Your task to perform on an android device: stop showing notifications on the lock screen Image 0: 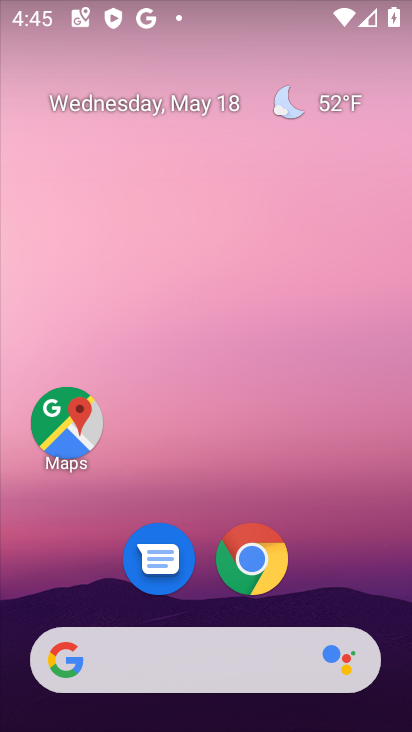
Step 0: drag from (195, 398) to (254, 31)
Your task to perform on an android device: stop showing notifications on the lock screen Image 1: 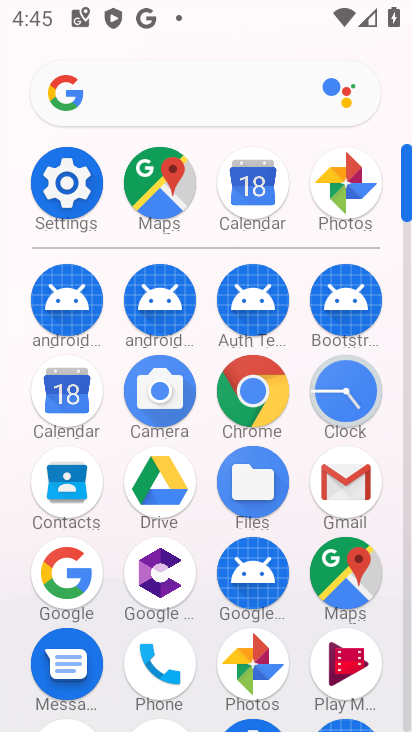
Step 1: click (76, 187)
Your task to perform on an android device: stop showing notifications on the lock screen Image 2: 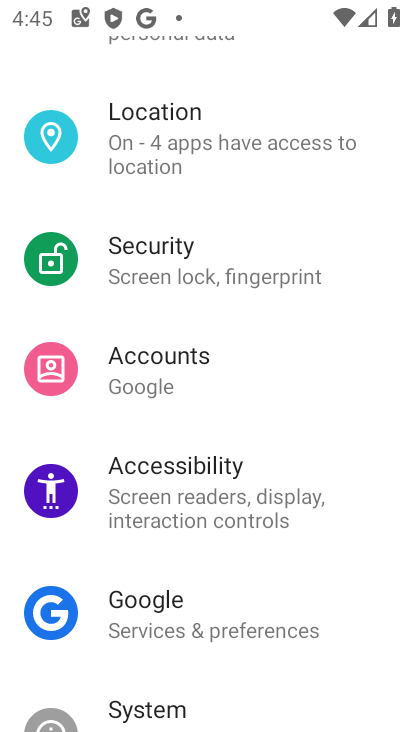
Step 2: drag from (277, 148) to (261, 429)
Your task to perform on an android device: stop showing notifications on the lock screen Image 3: 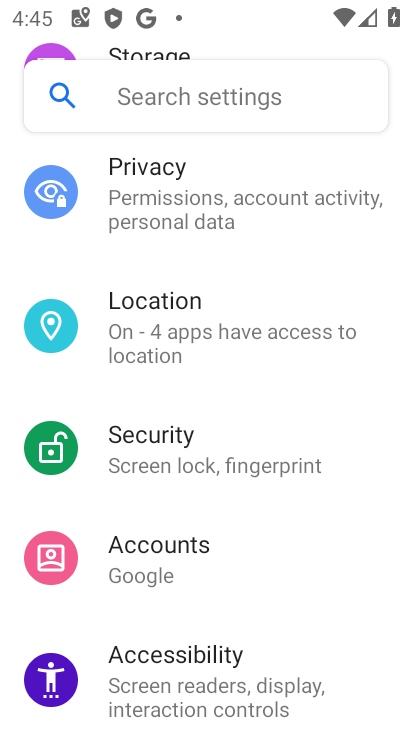
Step 3: drag from (148, 210) to (167, 413)
Your task to perform on an android device: stop showing notifications on the lock screen Image 4: 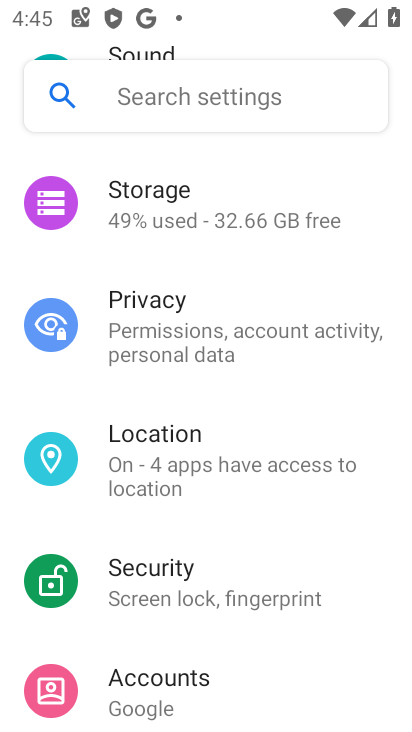
Step 4: drag from (260, 255) to (199, 676)
Your task to perform on an android device: stop showing notifications on the lock screen Image 5: 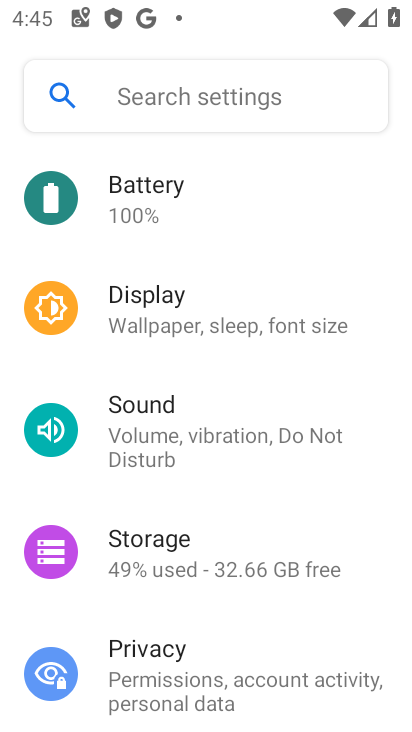
Step 5: drag from (229, 222) to (216, 629)
Your task to perform on an android device: stop showing notifications on the lock screen Image 6: 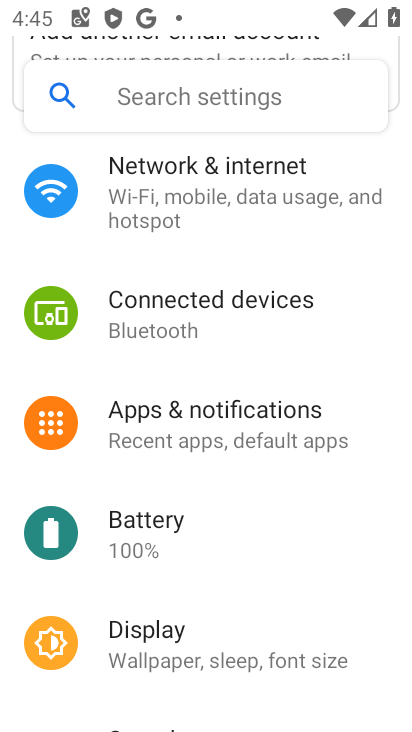
Step 6: click (199, 418)
Your task to perform on an android device: stop showing notifications on the lock screen Image 7: 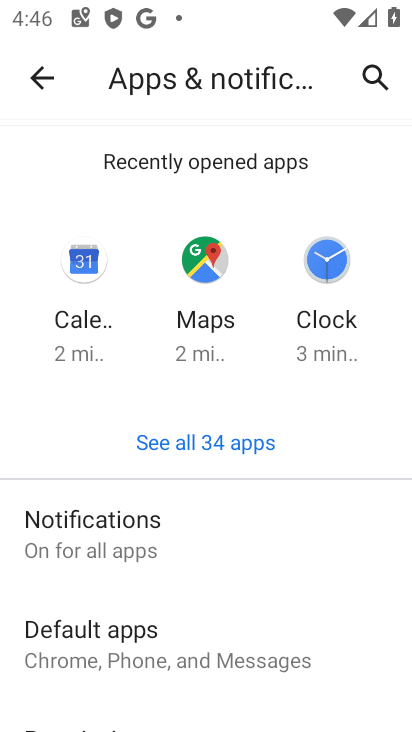
Step 7: click (149, 530)
Your task to perform on an android device: stop showing notifications on the lock screen Image 8: 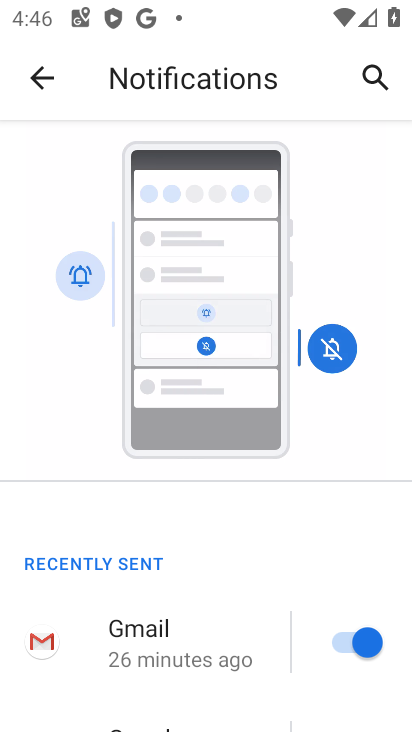
Step 8: drag from (172, 641) to (265, 69)
Your task to perform on an android device: stop showing notifications on the lock screen Image 9: 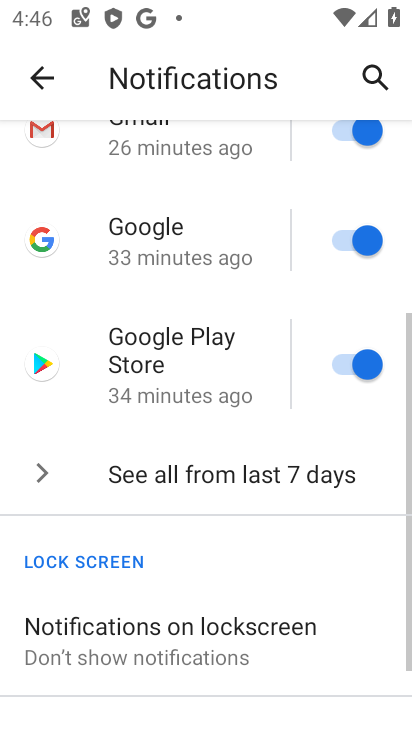
Step 9: click (200, 635)
Your task to perform on an android device: stop showing notifications on the lock screen Image 10: 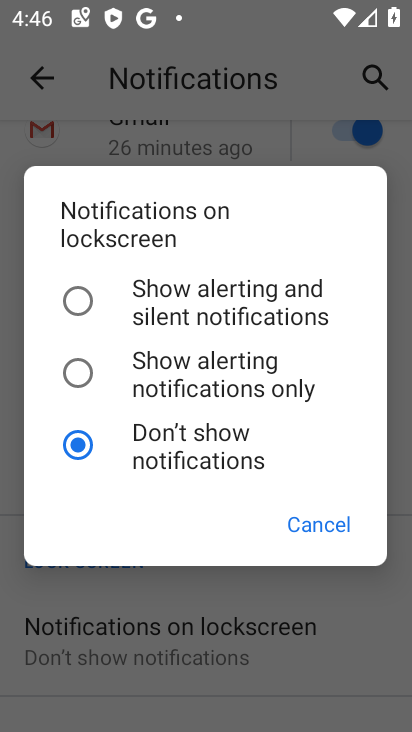
Step 10: task complete